Your task to perform on an android device: Open location settings Image 0: 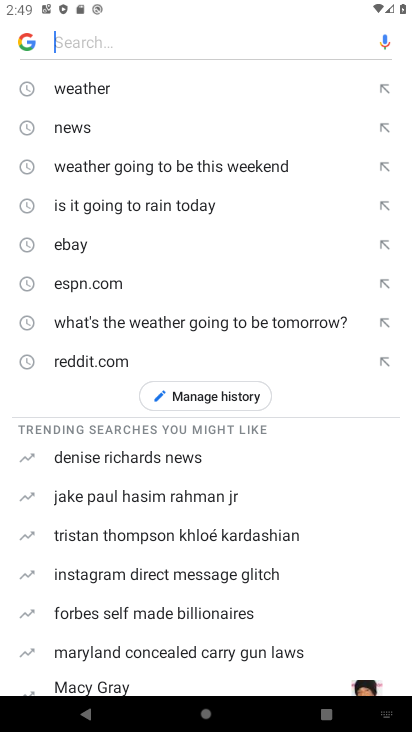
Step 0: press home button
Your task to perform on an android device: Open location settings Image 1: 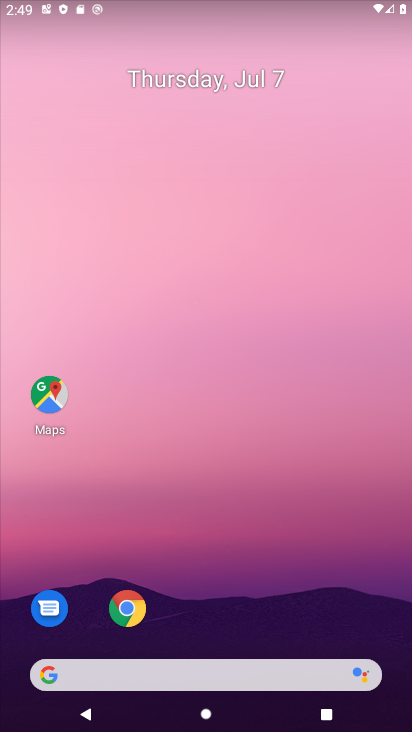
Step 1: drag from (365, 615) to (328, 29)
Your task to perform on an android device: Open location settings Image 2: 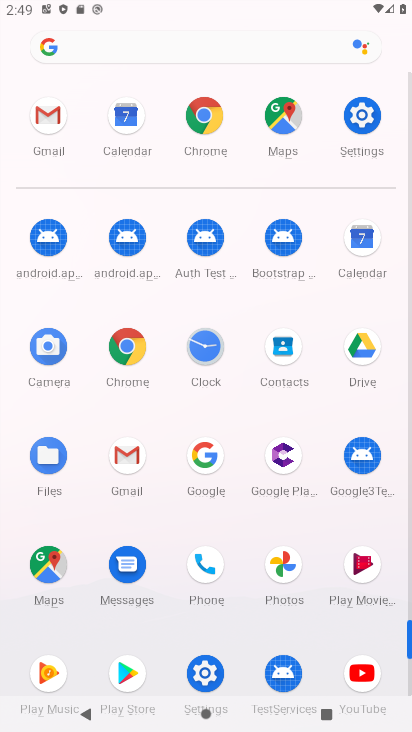
Step 2: click (205, 672)
Your task to perform on an android device: Open location settings Image 3: 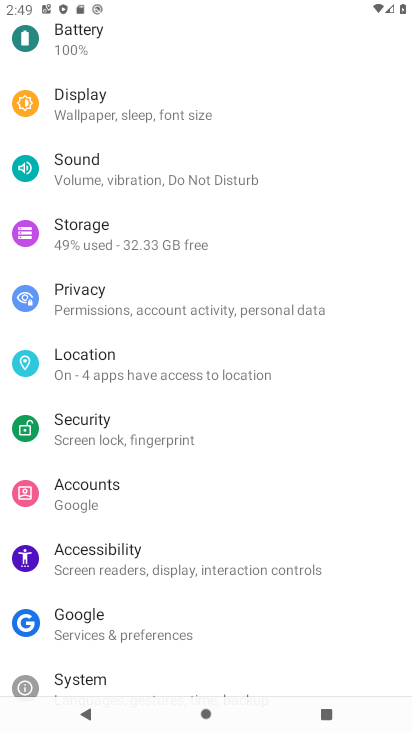
Step 3: click (91, 364)
Your task to perform on an android device: Open location settings Image 4: 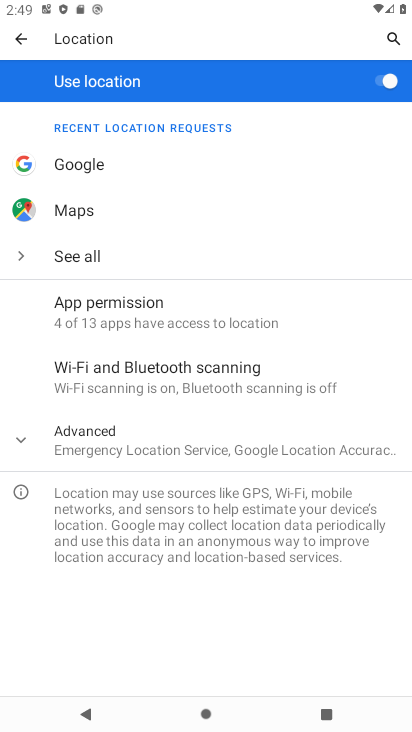
Step 4: click (23, 438)
Your task to perform on an android device: Open location settings Image 5: 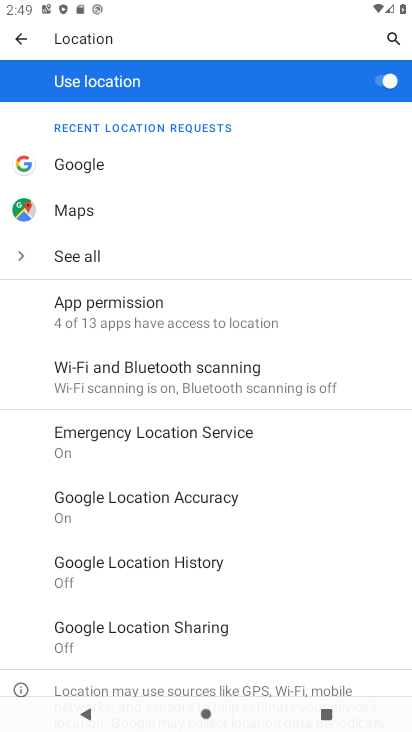
Step 5: task complete